Your task to perform on an android device: Check the news Image 0: 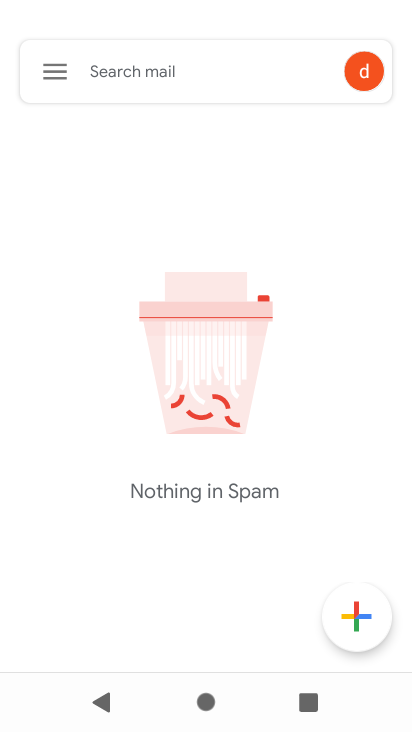
Step 0: press home button
Your task to perform on an android device: Check the news Image 1: 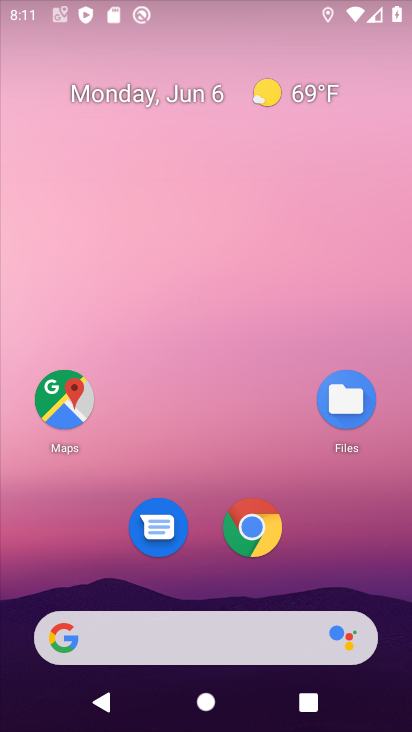
Step 1: drag from (289, 560) to (257, 174)
Your task to perform on an android device: Check the news Image 2: 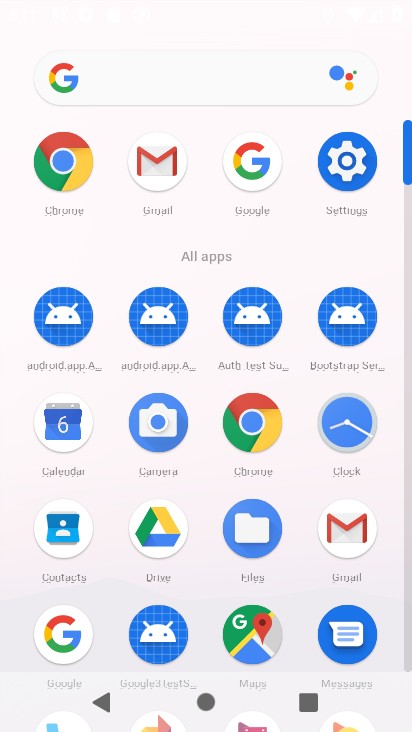
Step 2: click (253, 160)
Your task to perform on an android device: Check the news Image 3: 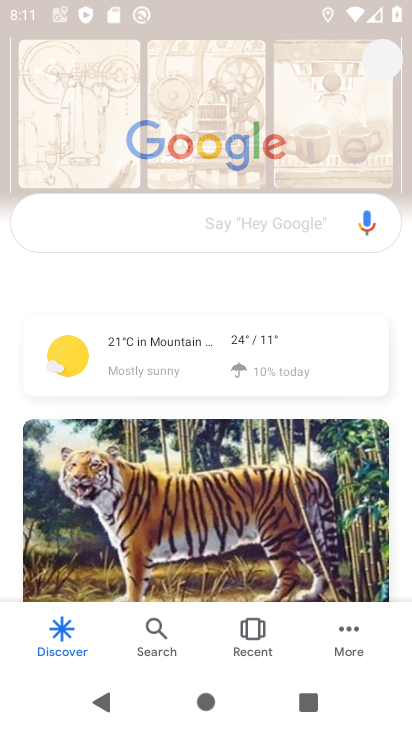
Step 3: click (189, 218)
Your task to perform on an android device: Check the news Image 4: 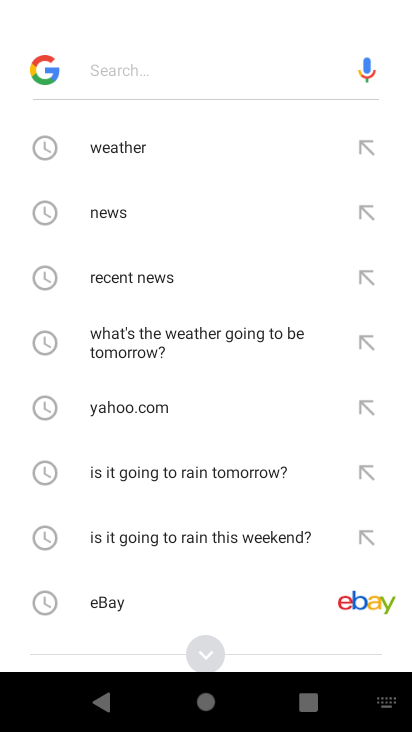
Step 4: click (134, 210)
Your task to perform on an android device: Check the news Image 5: 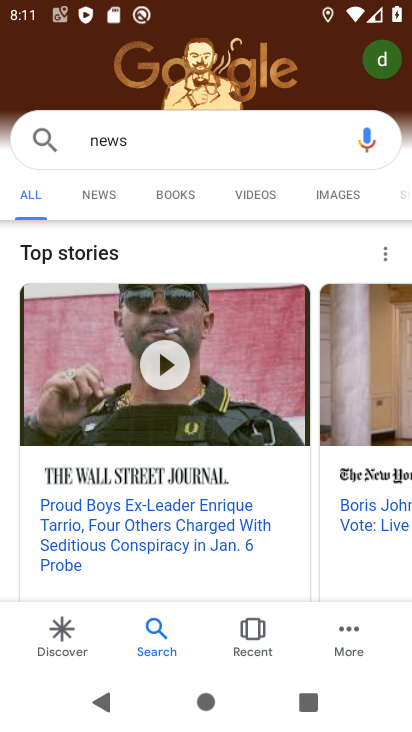
Step 5: task complete